Your task to perform on an android device: Go to CNN.com Image 0: 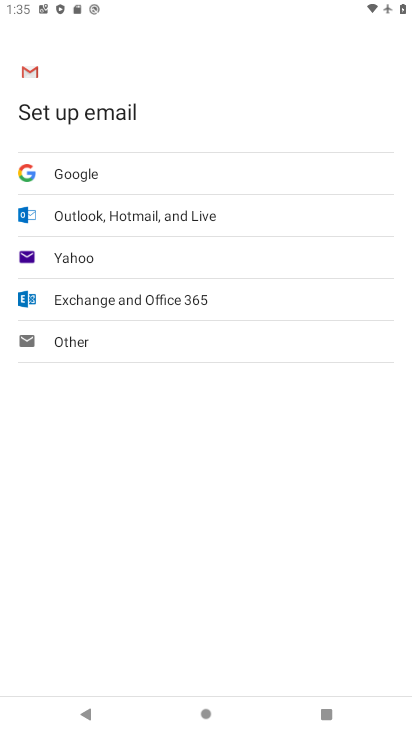
Step 0: press home button
Your task to perform on an android device: Go to CNN.com Image 1: 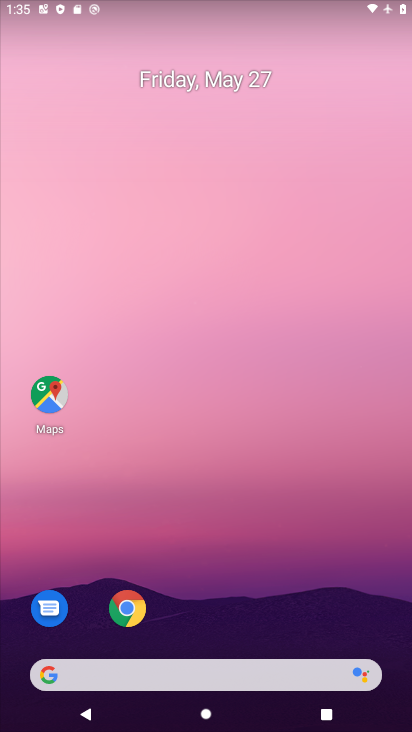
Step 1: click (127, 609)
Your task to perform on an android device: Go to CNN.com Image 2: 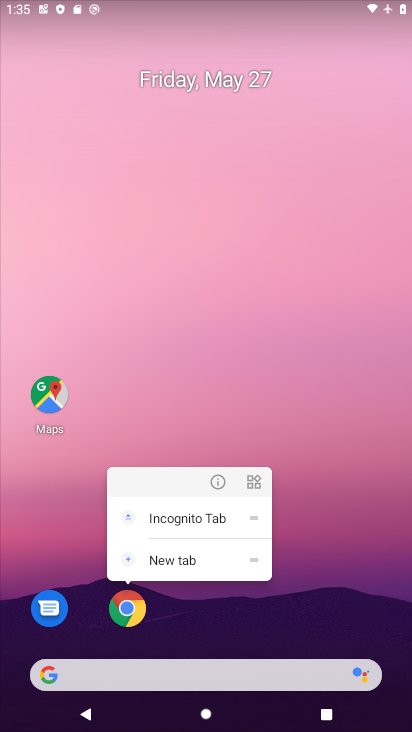
Step 2: click (141, 610)
Your task to perform on an android device: Go to CNN.com Image 3: 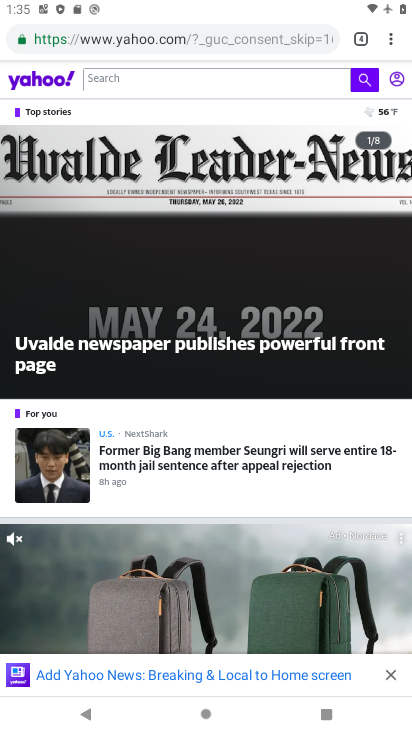
Step 3: drag from (388, 41) to (330, 77)
Your task to perform on an android device: Go to CNN.com Image 4: 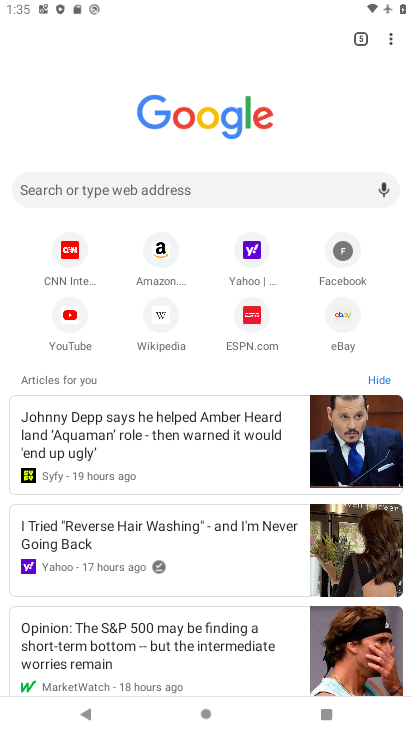
Step 4: click (68, 252)
Your task to perform on an android device: Go to CNN.com Image 5: 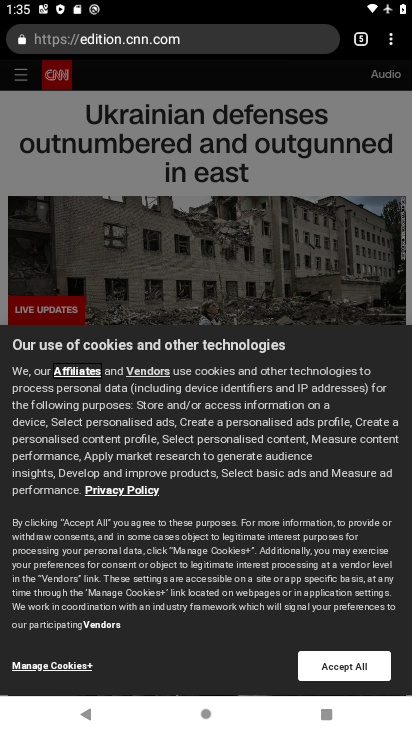
Step 5: click (364, 666)
Your task to perform on an android device: Go to CNN.com Image 6: 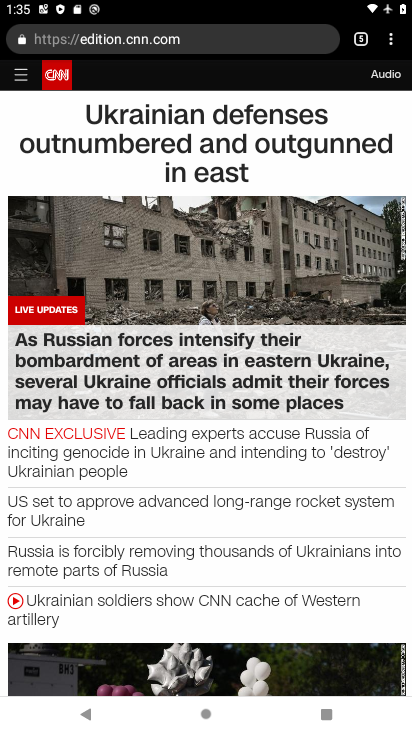
Step 6: task complete